Your task to perform on an android device: open wifi settings Image 0: 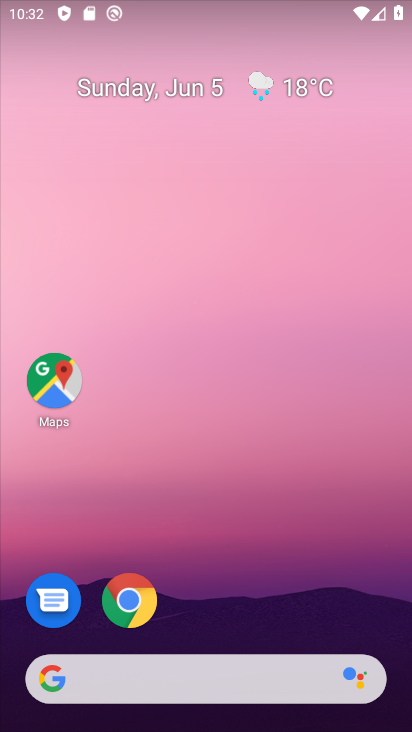
Step 0: drag from (211, 583) to (281, 159)
Your task to perform on an android device: open wifi settings Image 1: 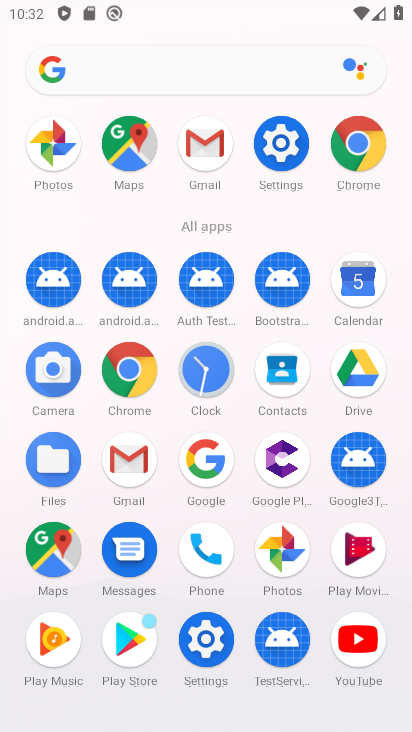
Step 1: click (286, 145)
Your task to perform on an android device: open wifi settings Image 2: 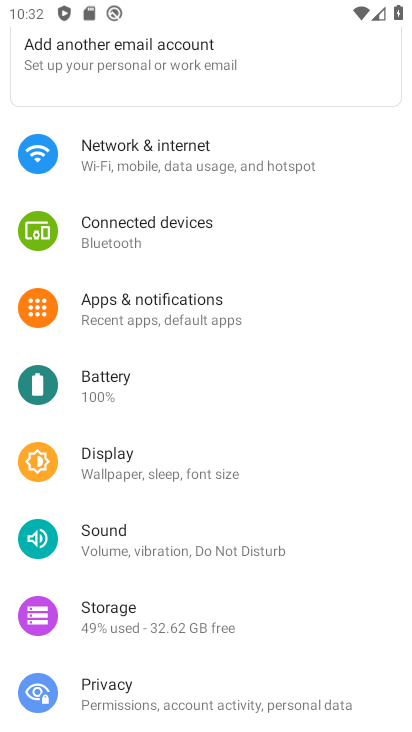
Step 2: click (179, 153)
Your task to perform on an android device: open wifi settings Image 3: 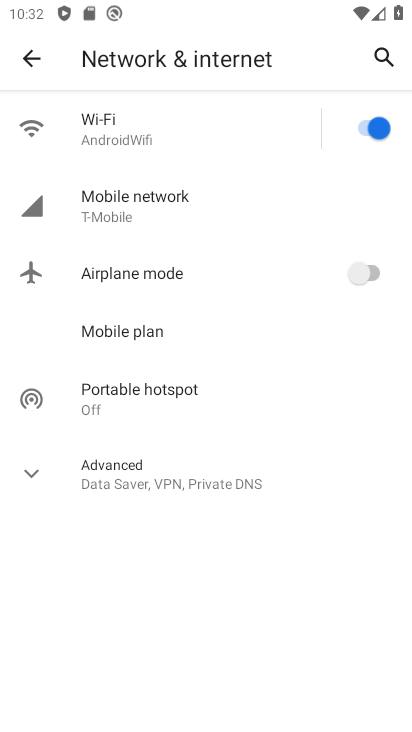
Step 3: click (151, 134)
Your task to perform on an android device: open wifi settings Image 4: 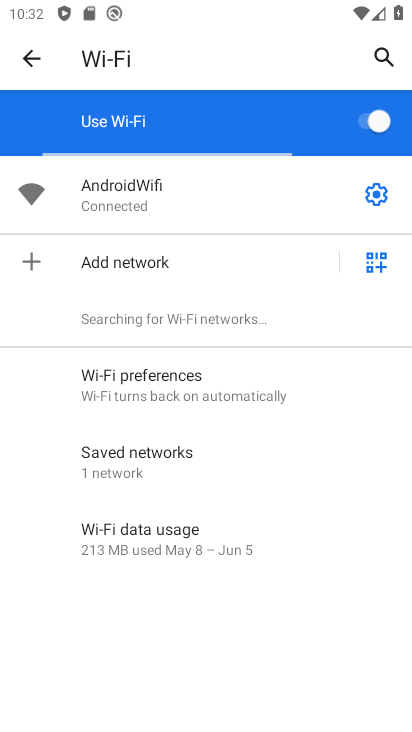
Step 4: task complete